Your task to perform on an android device: Is it going to rain today? Image 0: 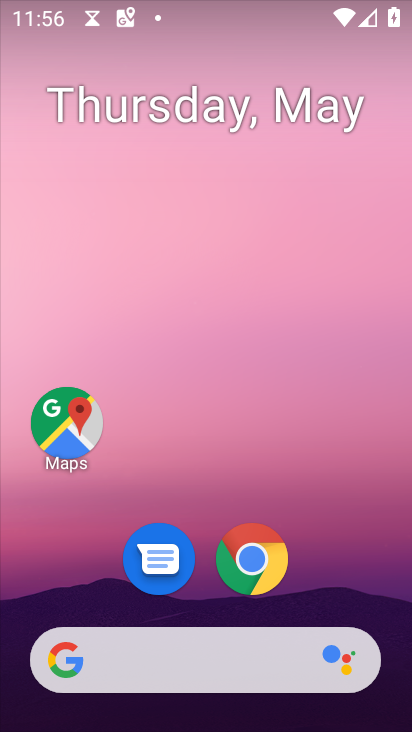
Step 0: drag from (216, 685) to (217, 210)
Your task to perform on an android device: Is it going to rain today? Image 1: 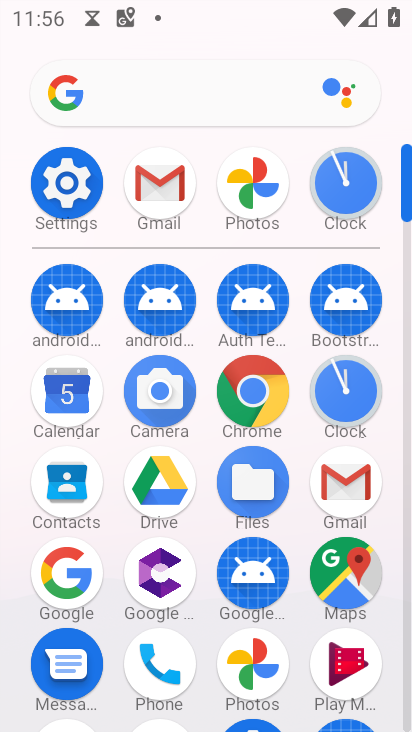
Step 1: click (72, 571)
Your task to perform on an android device: Is it going to rain today? Image 2: 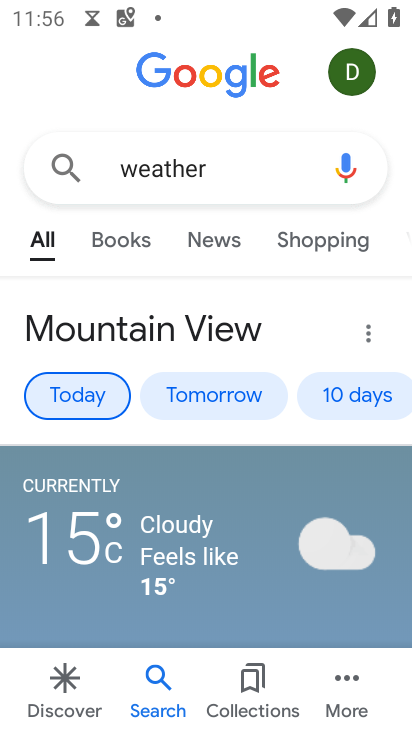
Step 2: task complete